Your task to perform on an android device: change the clock style Image 0: 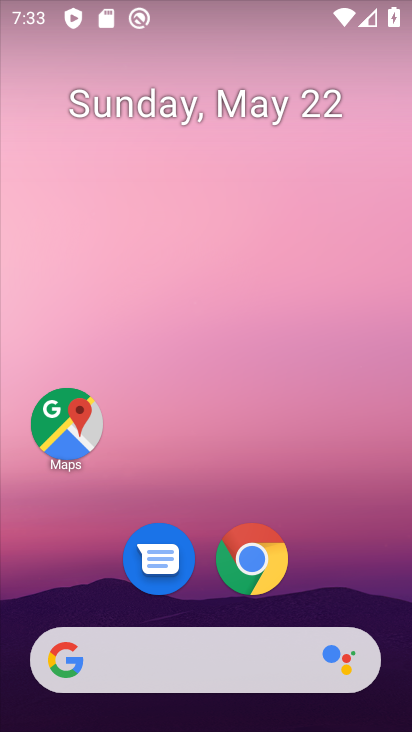
Step 0: drag from (231, 464) to (217, 6)
Your task to perform on an android device: change the clock style Image 1: 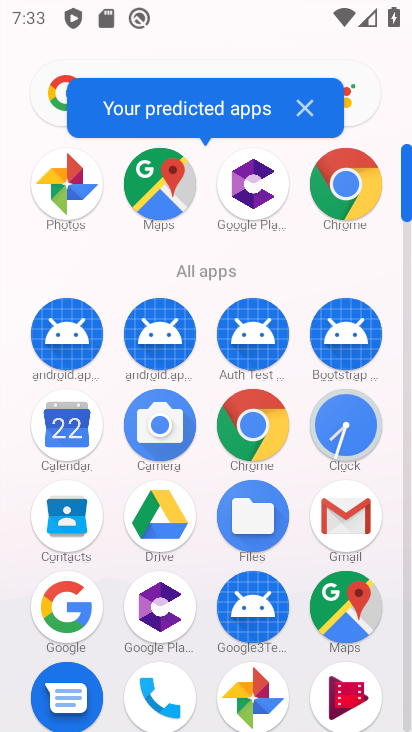
Step 1: click (339, 422)
Your task to perform on an android device: change the clock style Image 2: 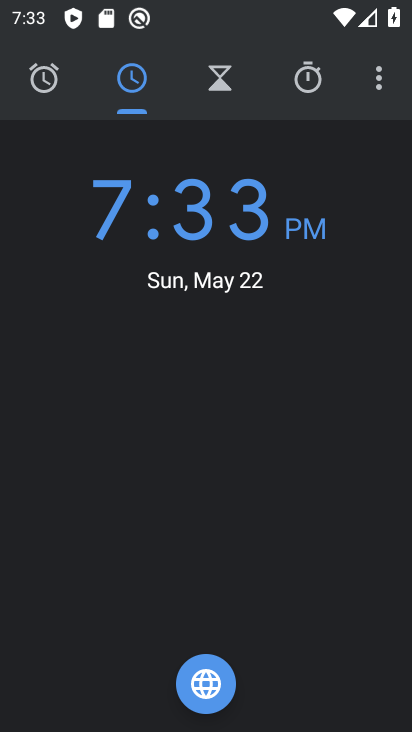
Step 2: click (384, 80)
Your task to perform on an android device: change the clock style Image 3: 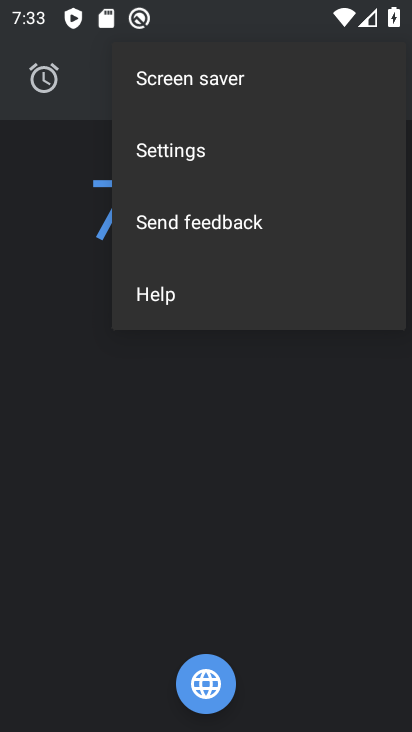
Step 3: click (293, 155)
Your task to perform on an android device: change the clock style Image 4: 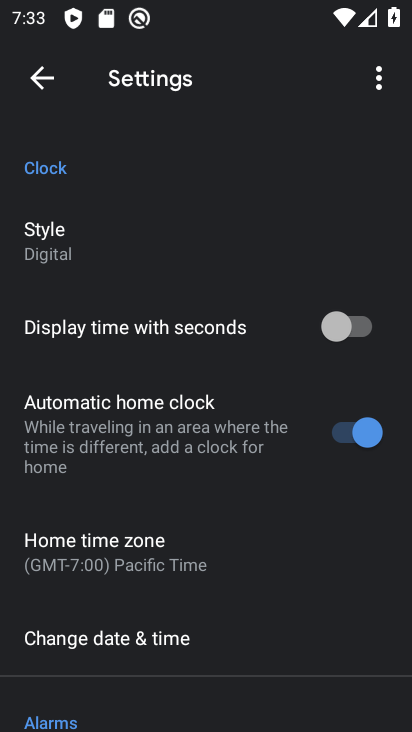
Step 4: click (87, 248)
Your task to perform on an android device: change the clock style Image 5: 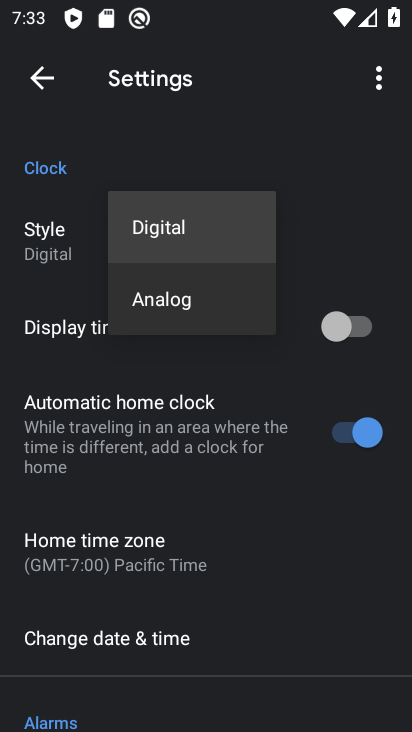
Step 5: click (161, 310)
Your task to perform on an android device: change the clock style Image 6: 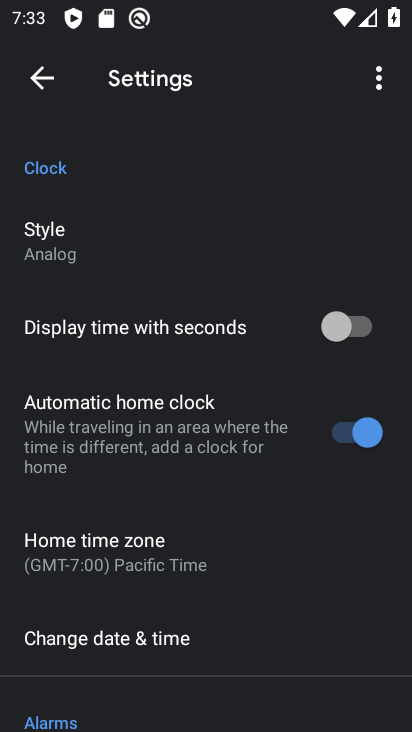
Step 6: click (36, 71)
Your task to perform on an android device: change the clock style Image 7: 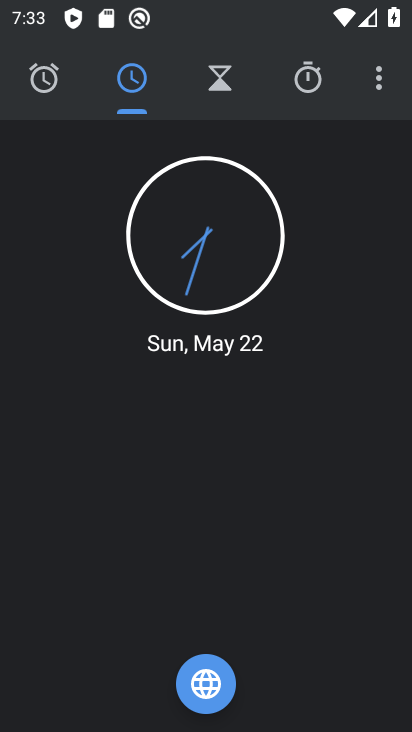
Step 7: task complete